Your task to perform on an android device: toggle notification dots Image 0: 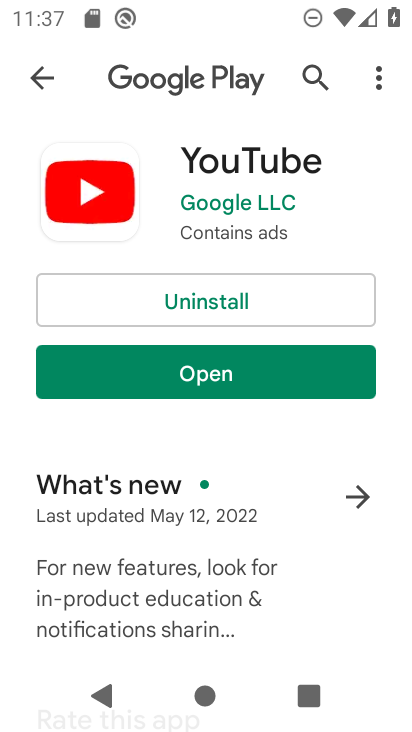
Step 0: press home button
Your task to perform on an android device: toggle notification dots Image 1: 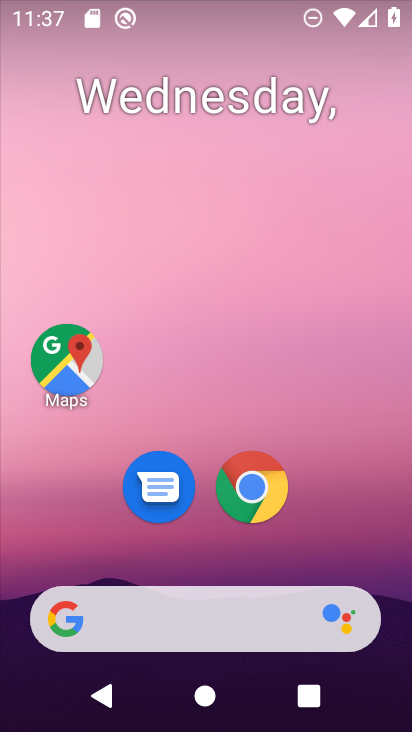
Step 1: drag from (334, 529) to (244, 37)
Your task to perform on an android device: toggle notification dots Image 2: 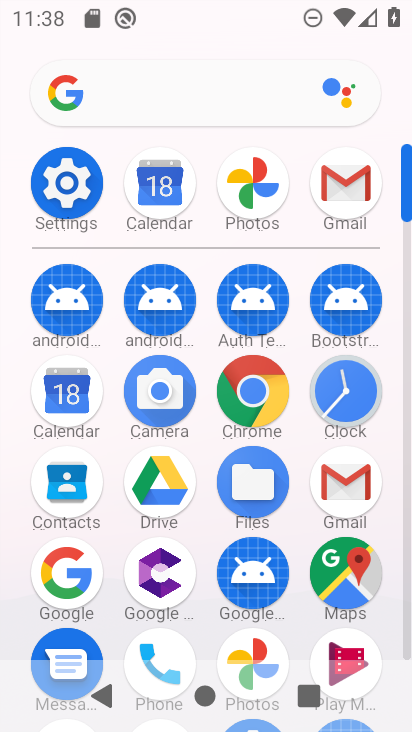
Step 2: click (67, 178)
Your task to perform on an android device: toggle notification dots Image 3: 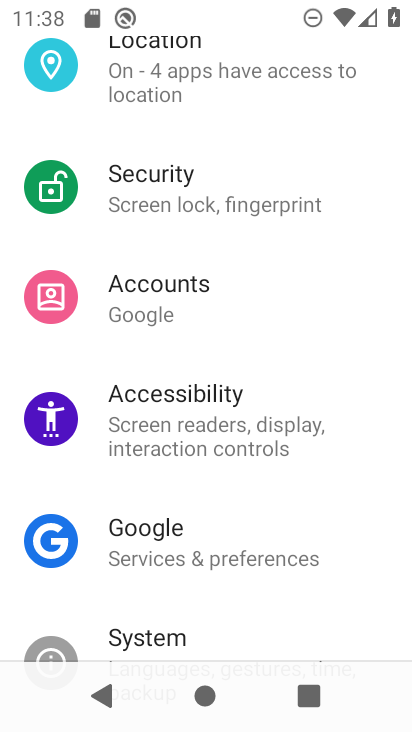
Step 3: drag from (262, 479) to (260, 214)
Your task to perform on an android device: toggle notification dots Image 4: 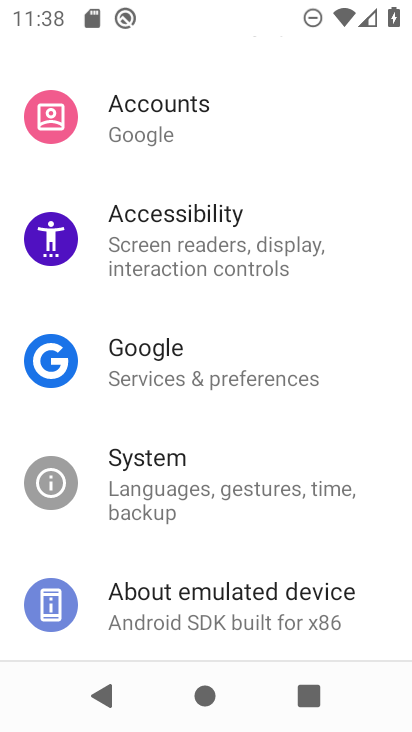
Step 4: drag from (262, 177) to (232, 612)
Your task to perform on an android device: toggle notification dots Image 5: 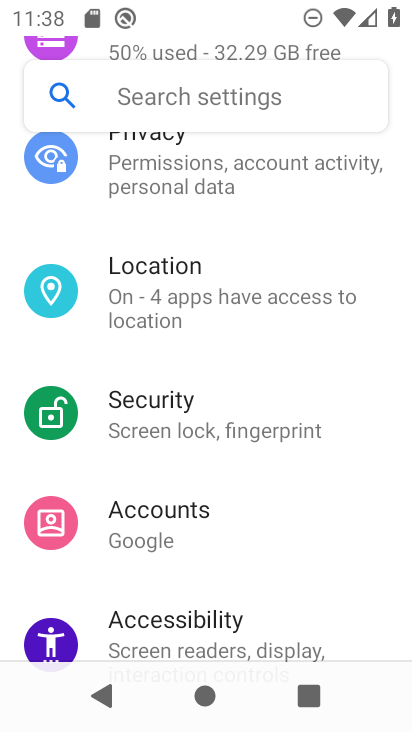
Step 5: drag from (229, 201) to (259, 646)
Your task to perform on an android device: toggle notification dots Image 6: 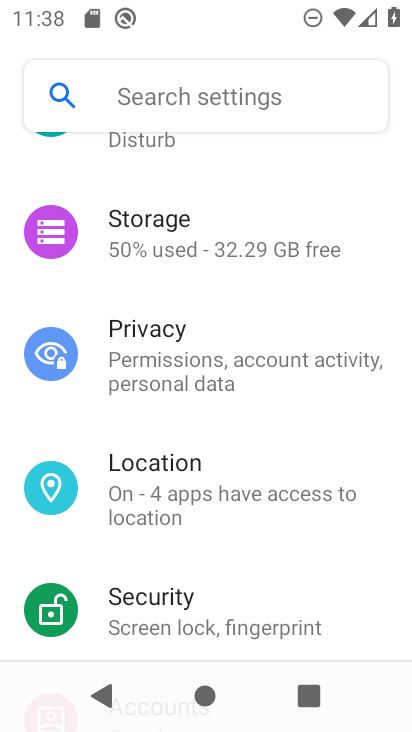
Step 6: drag from (188, 186) to (248, 664)
Your task to perform on an android device: toggle notification dots Image 7: 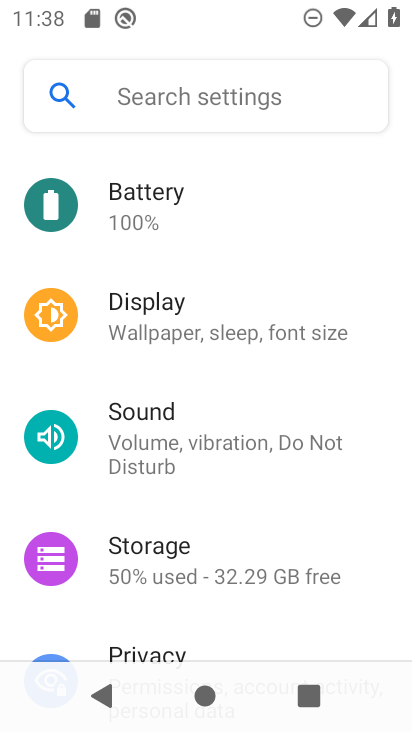
Step 7: drag from (209, 147) to (181, 678)
Your task to perform on an android device: toggle notification dots Image 8: 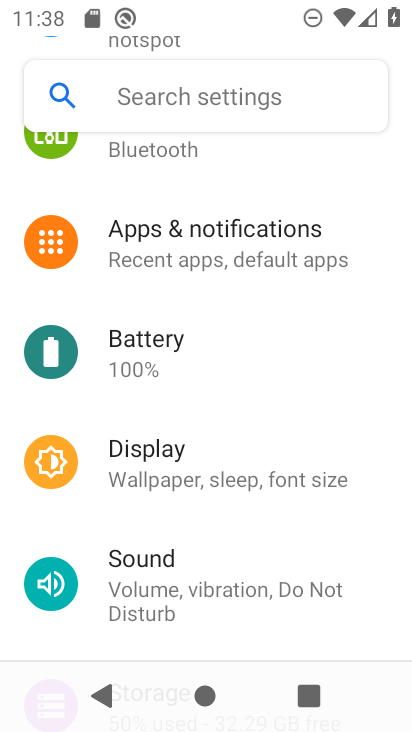
Step 8: click (201, 225)
Your task to perform on an android device: toggle notification dots Image 9: 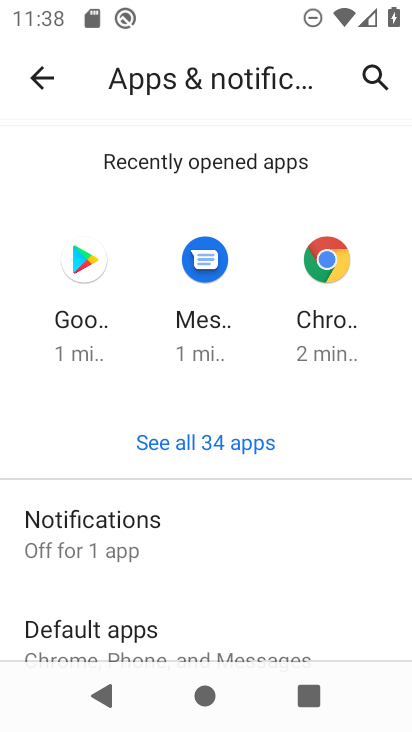
Step 9: drag from (216, 515) to (192, 200)
Your task to perform on an android device: toggle notification dots Image 10: 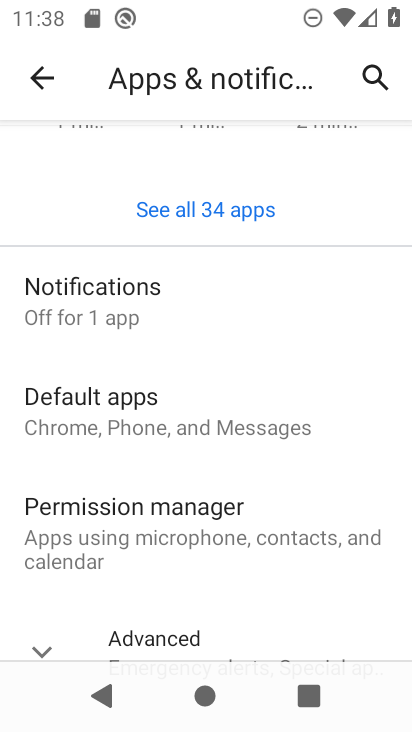
Step 10: click (75, 285)
Your task to perform on an android device: toggle notification dots Image 11: 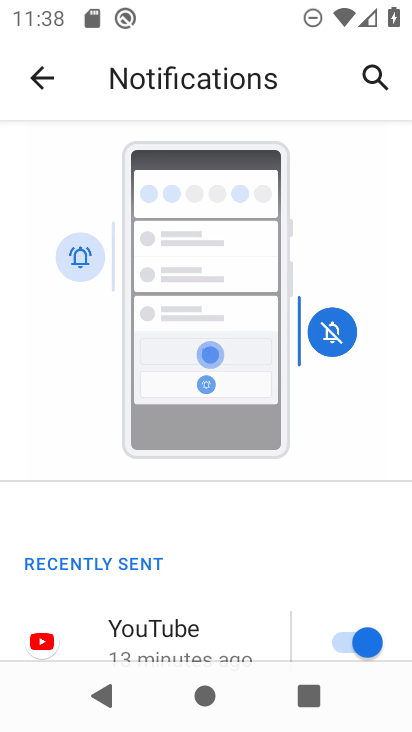
Step 11: drag from (242, 510) to (221, 114)
Your task to perform on an android device: toggle notification dots Image 12: 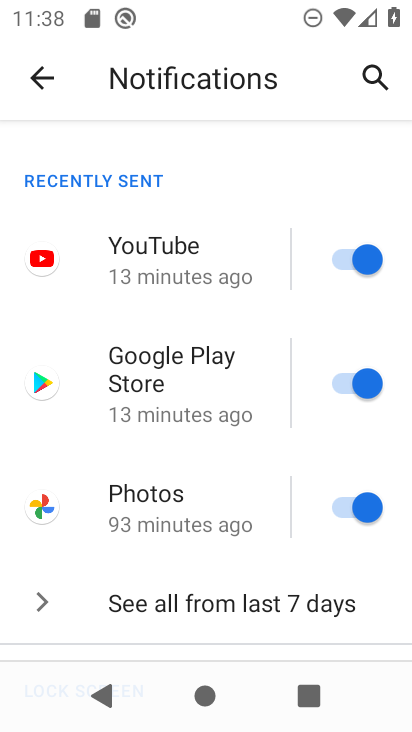
Step 12: drag from (274, 521) to (274, 296)
Your task to perform on an android device: toggle notification dots Image 13: 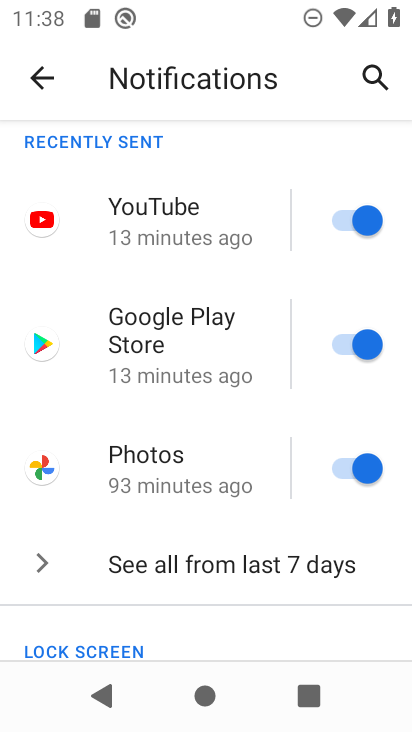
Step 13: drag from (219, 512) to (193, 181)
Your task to perform on an android device: toggle notification dots Image 14: 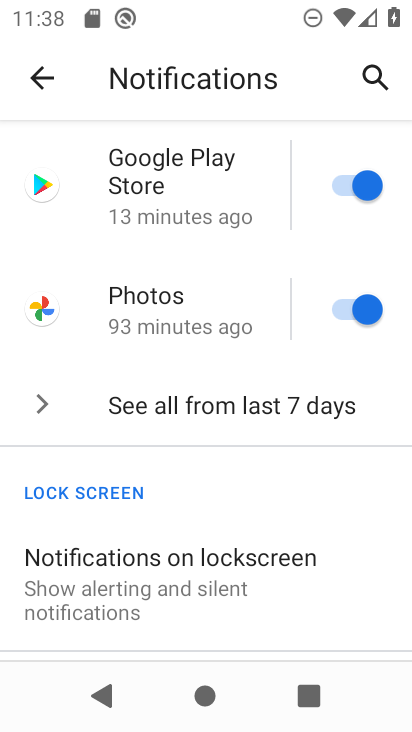
Step 14: drag from (171, 498) to (172, 273)
Your task to perform on an android device: toggle notification dots Image 15: 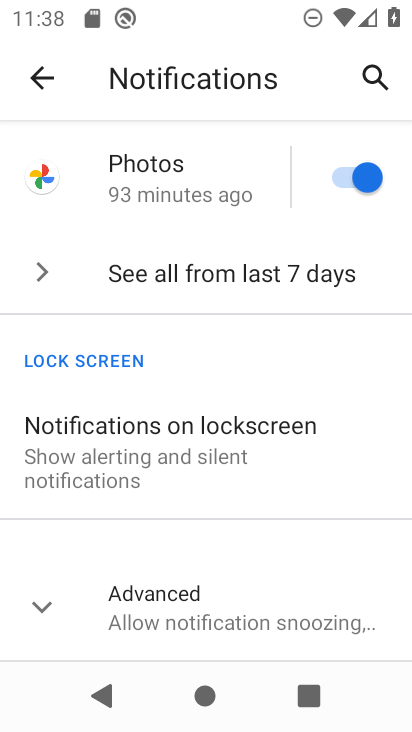
Step 15: click (44, 596)
Your task to perform on an android device: toggle notification dots Image 16: 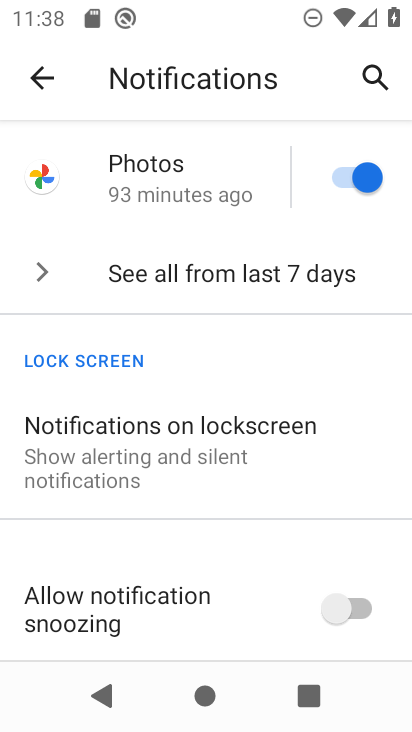
Step 16: drag from (187, 521) to (171, 349)
Your task to perform on an android device: toggle notification dots Image 17: 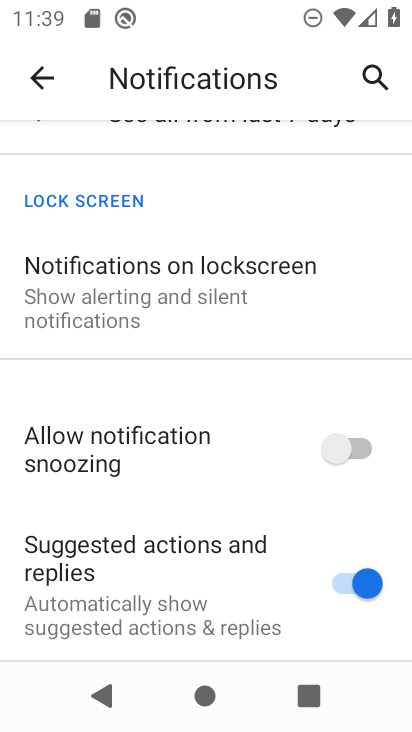
Step 17: drag from (227, 497) to (208, 98)
Your task to perform on an android device: toggle notification dots Image 18: 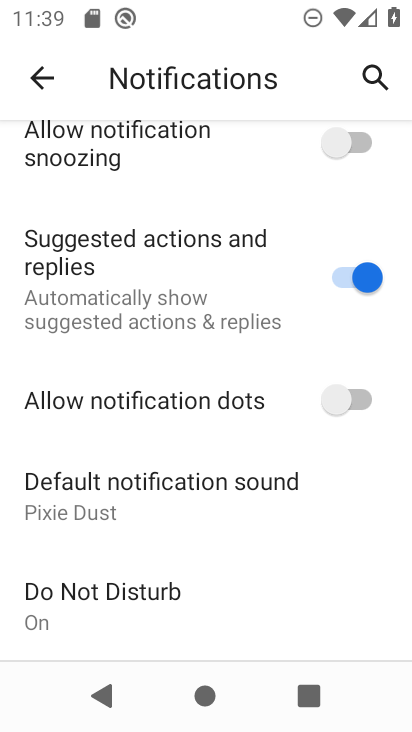
Step 18: click (329, 395)
Your task to perform on an android device: toggle notification dots Image 19: 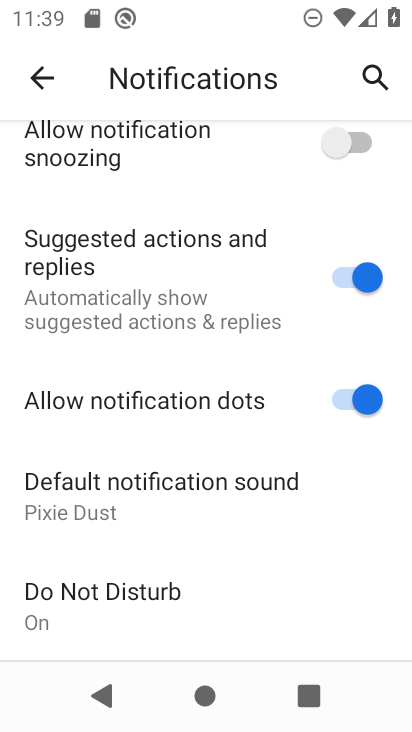
Step 19: task complete